Your task to perform on an android device: check data usage Image 0: 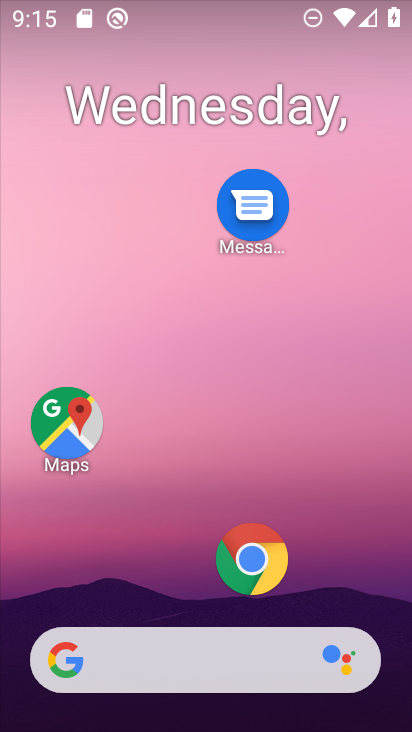
Step 0: drag from (174, 625) to (198, 132)
Your task to perform on an android device: check data usage Image 1: 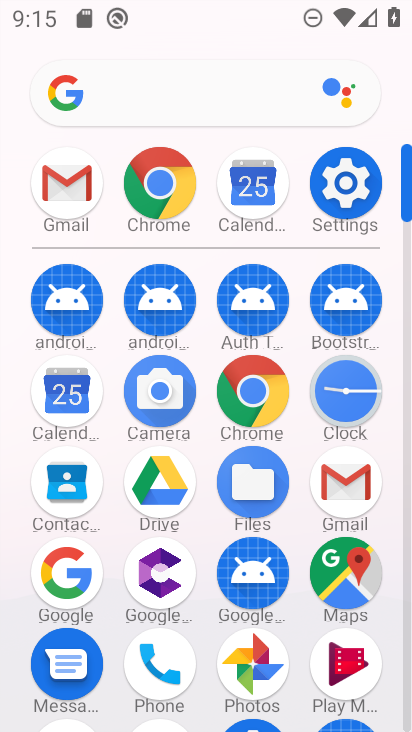
Step 1: click (367, 196)
Your task to perform on an android device: check data usage Image 2: 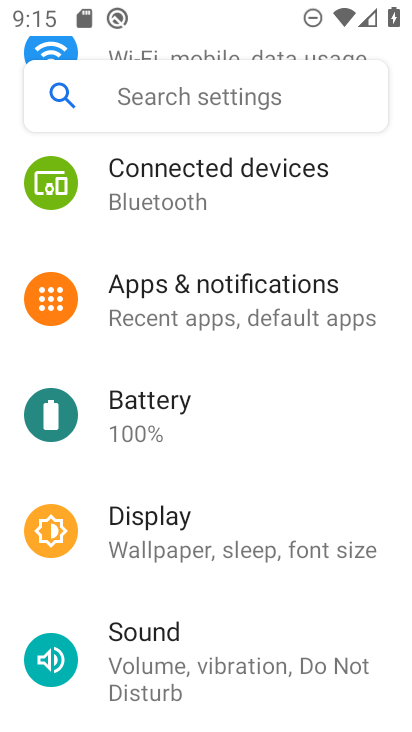
Step 2: drag from (217, 327) to (210, 663)
Your task to perform on an android device: check data usage Image 3: 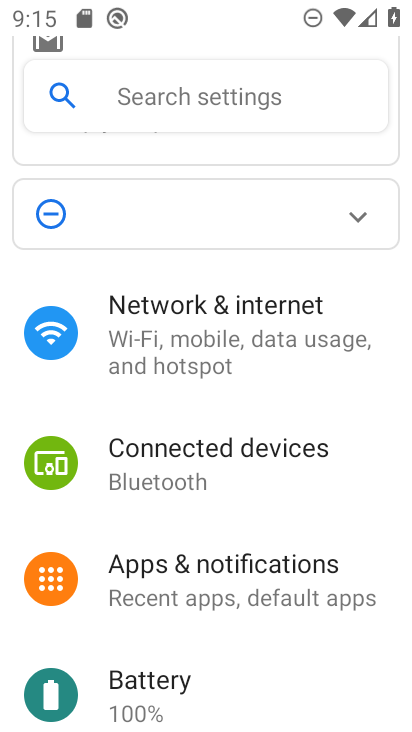
Step 3: click (237, 353)
Your task to perform on an android device: check data usage Image 4: 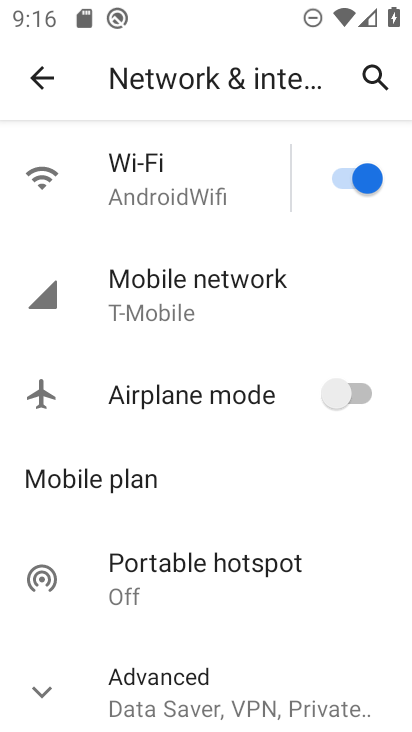
Step 4: click (266, 301)
Your task to perform on an android device: check data usage Image 5: 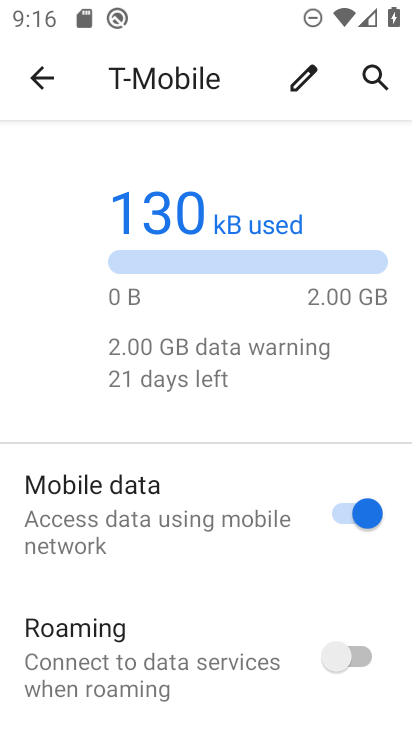
Step 5: drag from (154, 584) to (175, 303)
Your task to perform on an android device: check data usage Image 6: 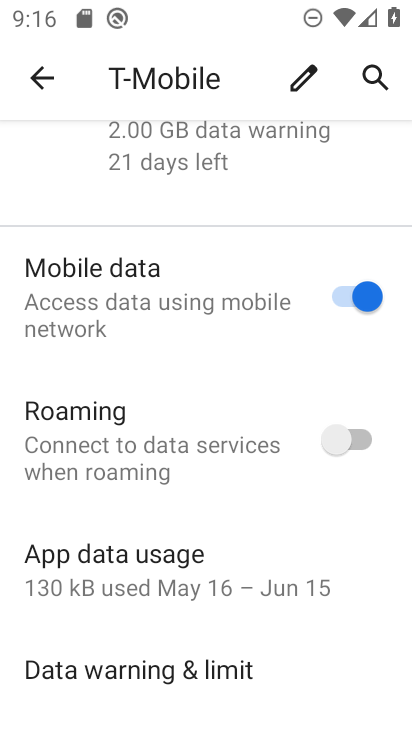
Step 6: click (203, 565)
Your task to perform on an android device: check data usage Image 7: 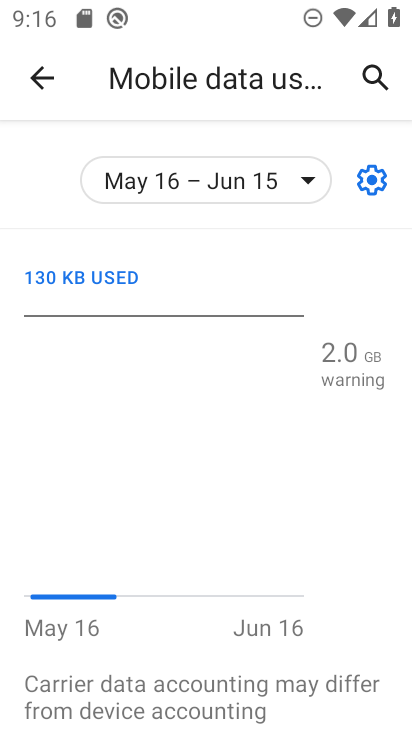
Step 7: task complete